Your task to perform on an android device: Search for Italian restaurants on Maps Image 0: 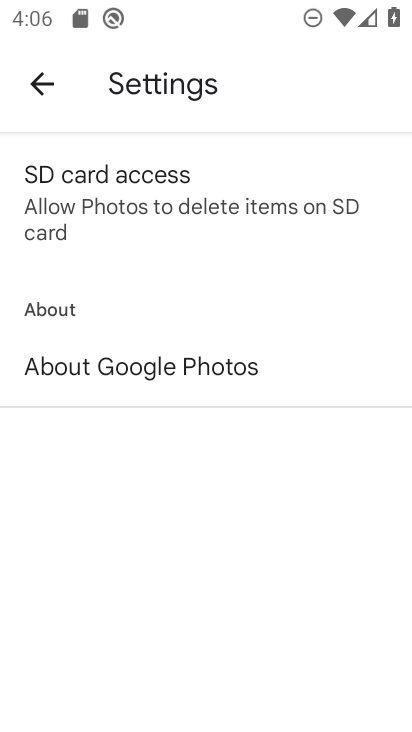
Step 0: press home button
Your task to perform on an android device: Search for Italian restaurants on Maps Image 1: 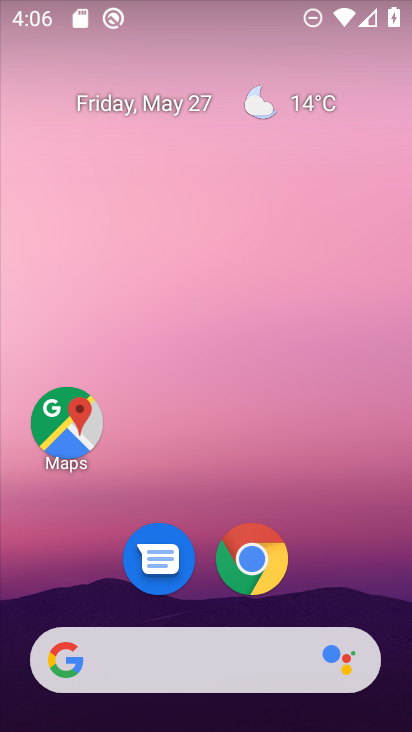
Step 1: drag from (316, 606) to (380, 45)
Your task to perform on an android device: Search for Italian restaurants on Maps Image 2: 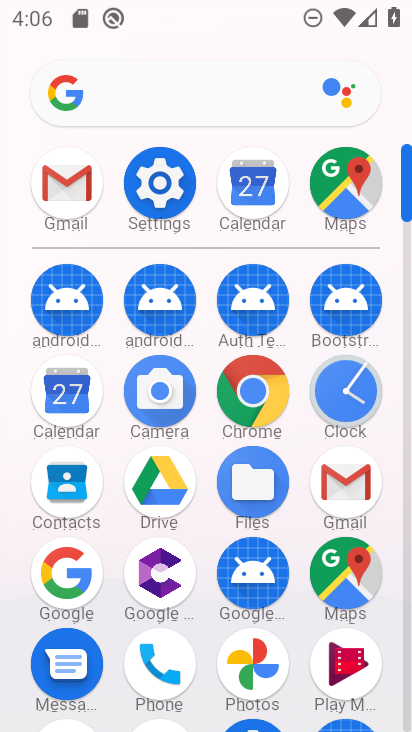
Step 2: click (354, 593)
Your task to perform on an android device: Search for Italian restaurants on Maps Image 3: 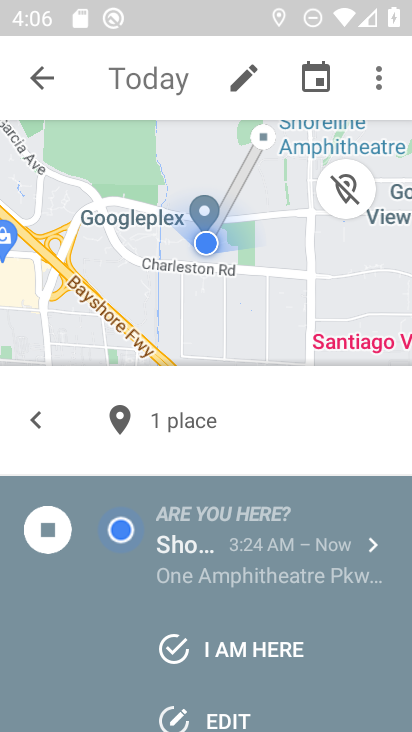
Step 3: press back button
Your task to perform on an android device: Search for Italian restaurants on Maps Image 4: 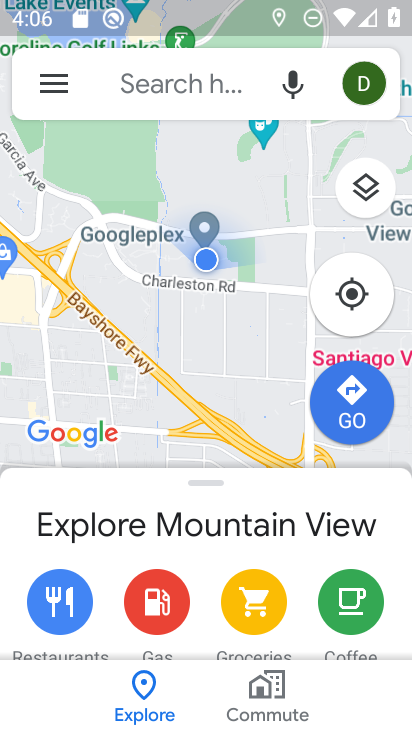
Step 4: click (181, 67)
Your task to perform on an android device: Search for Italian restaurants on Maps Image 5: 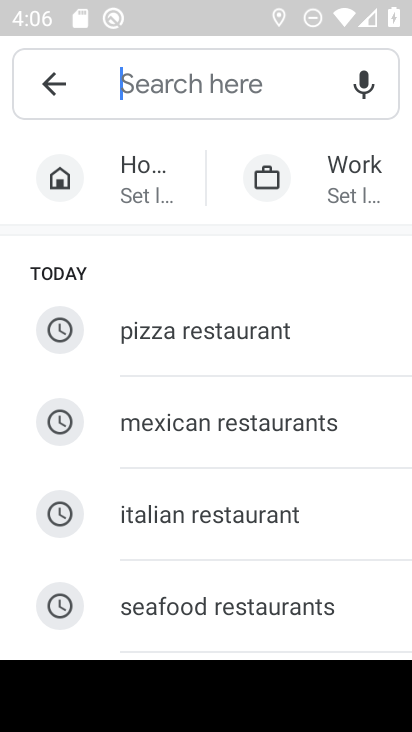
Step 5: click (192, 509)
Your task to perform on an android device: Search for Italian restaurants on Maps Image 6: 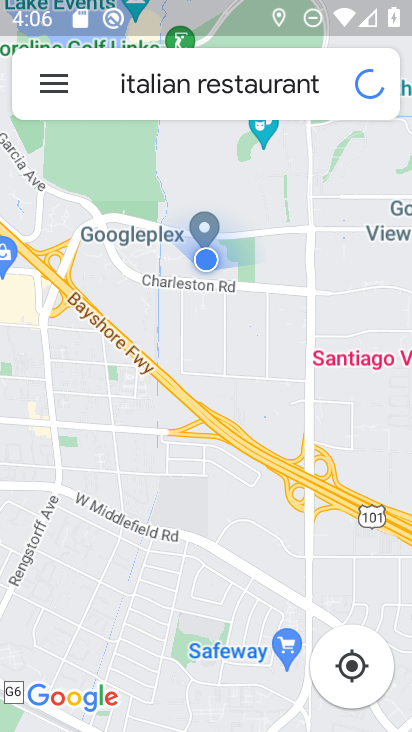
Step 6: task complete